Your task to perform on an android device: turn off notifications in google photos Image 0: 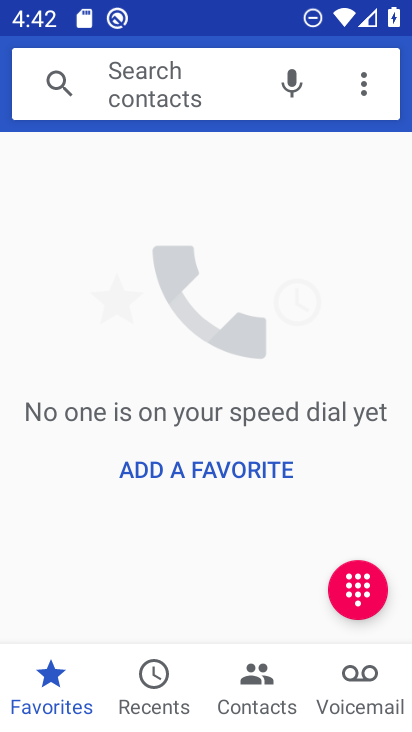
Step 0: click (257, 573)
Your task to perform on an android device: turn off notifications in google photos Image 1: 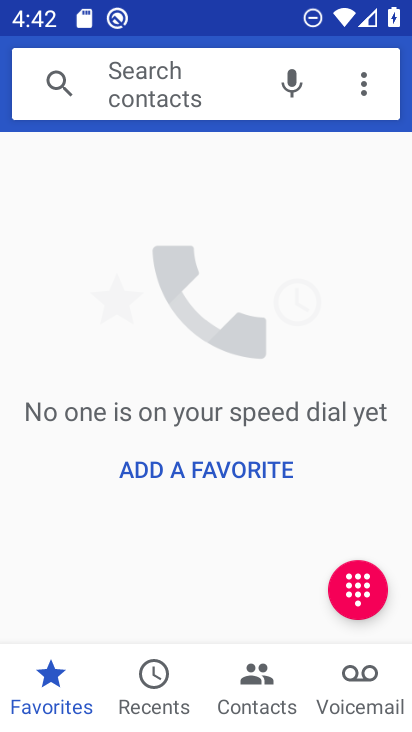
Step 1: press back button
Your task to perform on an android device: turn off notifications in google photos Image 2: 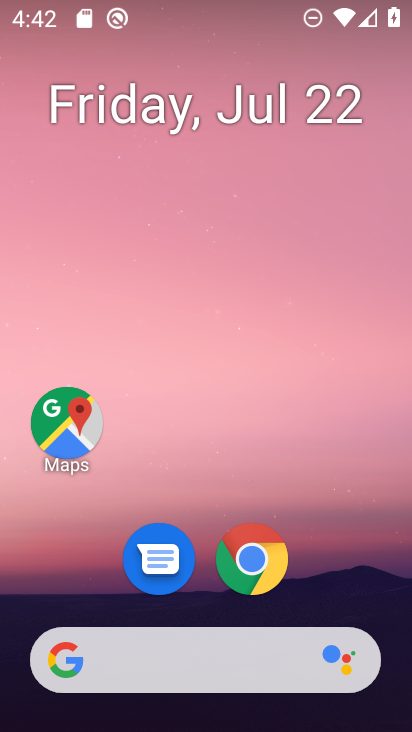
Step 2: drag from (210, 576) to (247, 52)
Your task to perform on an android device: turn off notifications in google photos Image 3: 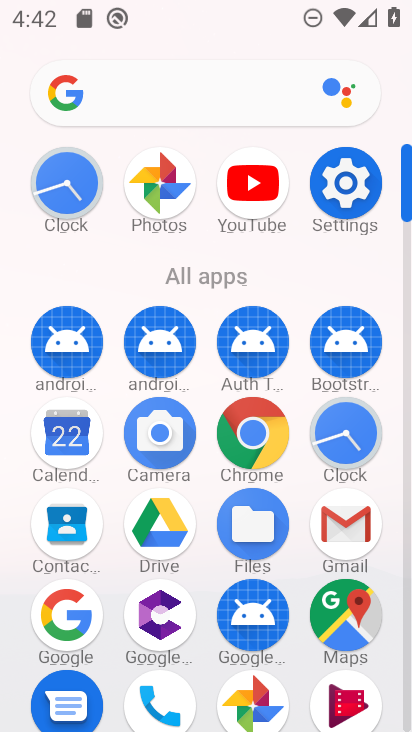
Step 3: click (151, 178)
Your task to perform on an android device: turn off notifications in google photos Image 4: 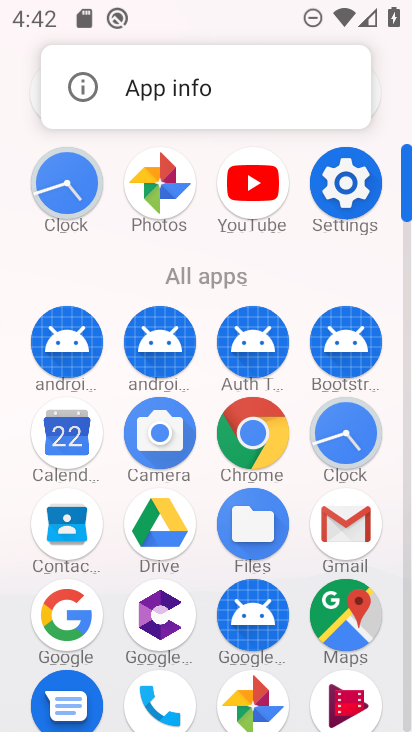
Step 4: click (90, 88)
Your task to perform on an android device: turn off notifications in google photos Image 5: 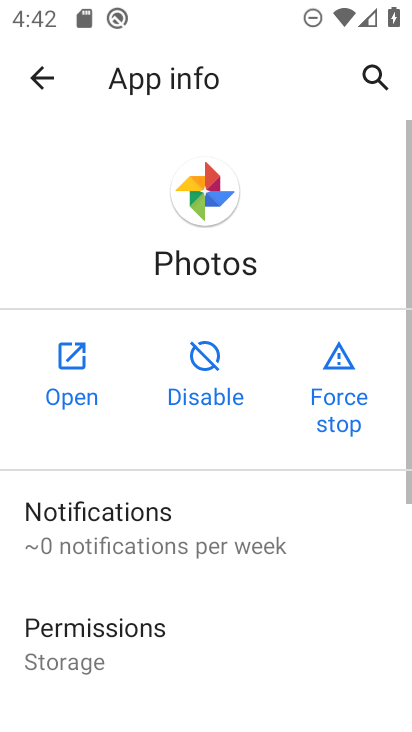
Step 5: click (115, 525)
Your task to perform on an android device: turn off notifications in google photos Image 6: 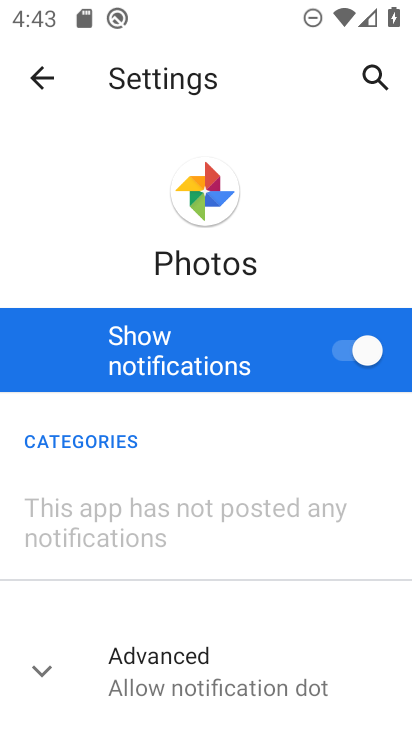
Step 6: click (367, 352)
Your task to perform on an android device: turn off notifications in google photos Image 7: 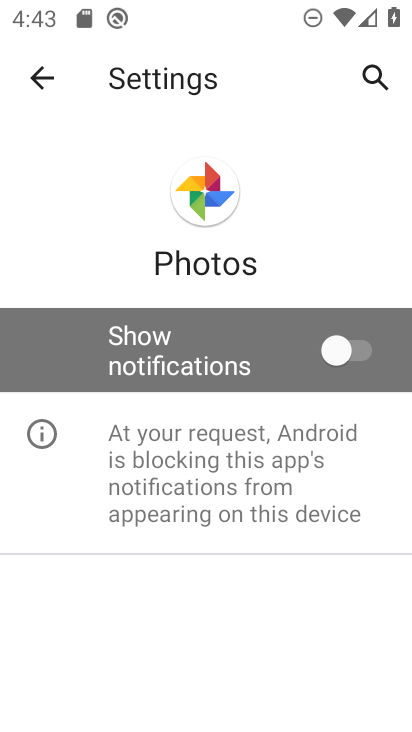
Step 7: task complete